Your task to perform on an android device: Open Google Chrome and click the shortcut for Amazon.com Image 0: 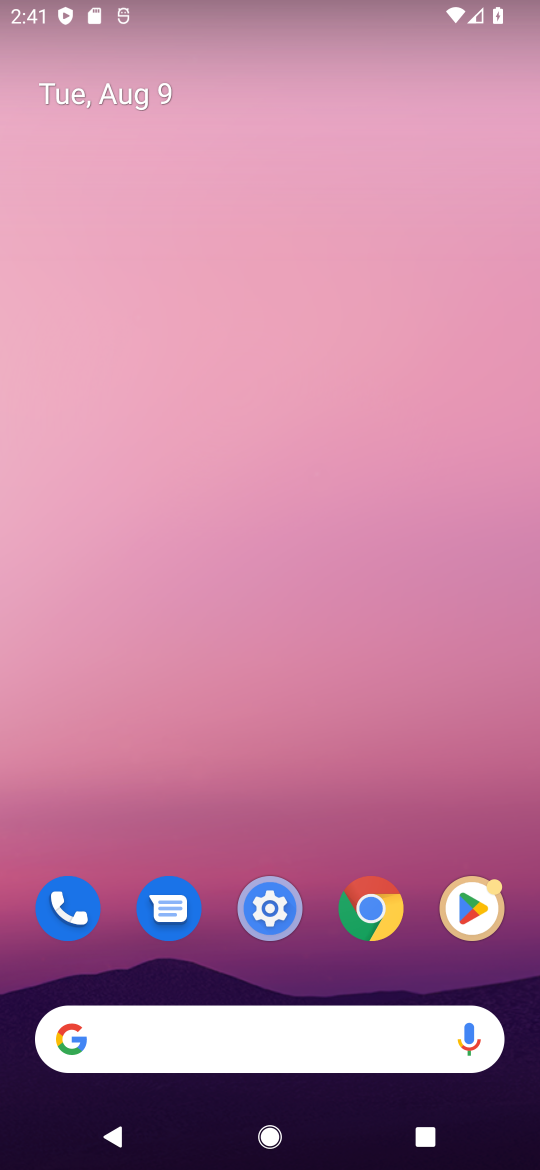
Step 0: click (279, 276)
Your task to perform on an android device: Open Google Chrome and click the shortcut for Amazon.com Image 1: 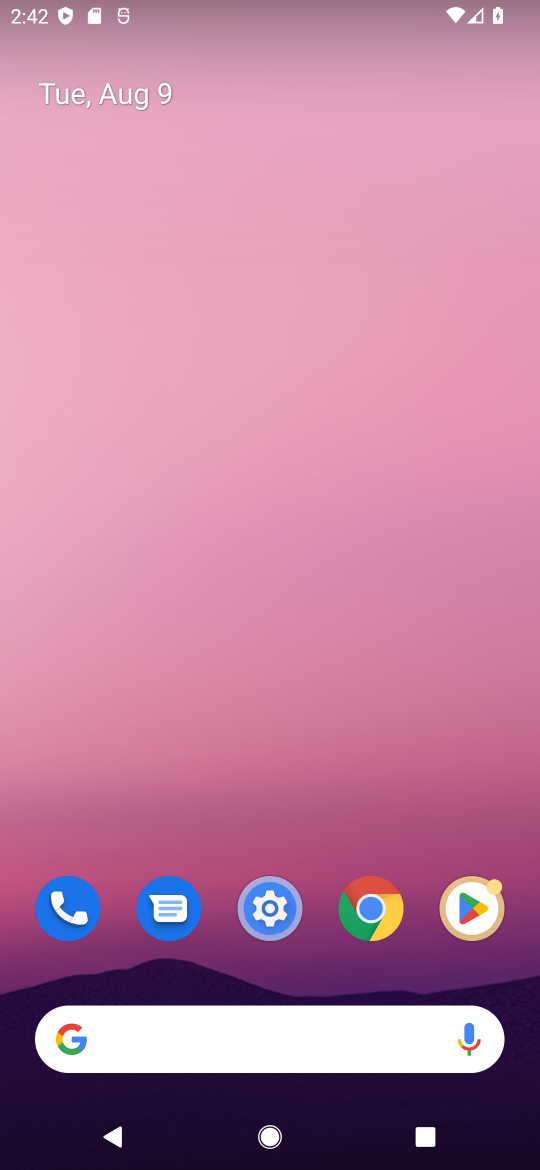
Step 1: drag from (305, 484) to (305, 260)
Your task to perform on an android device: Open Google Chrome and click the shortcut for Amazon.com Image 2: 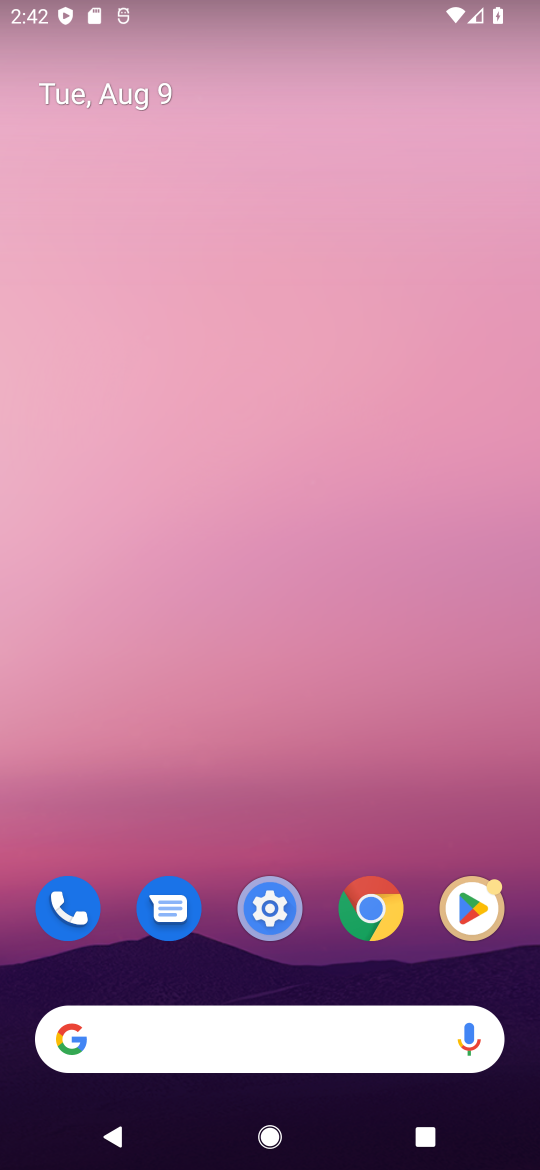
Step 2: click (229, 324)
Your task to perform on an android device: Open Google Chrome and click the shortcut for Amazon.com Image 3: 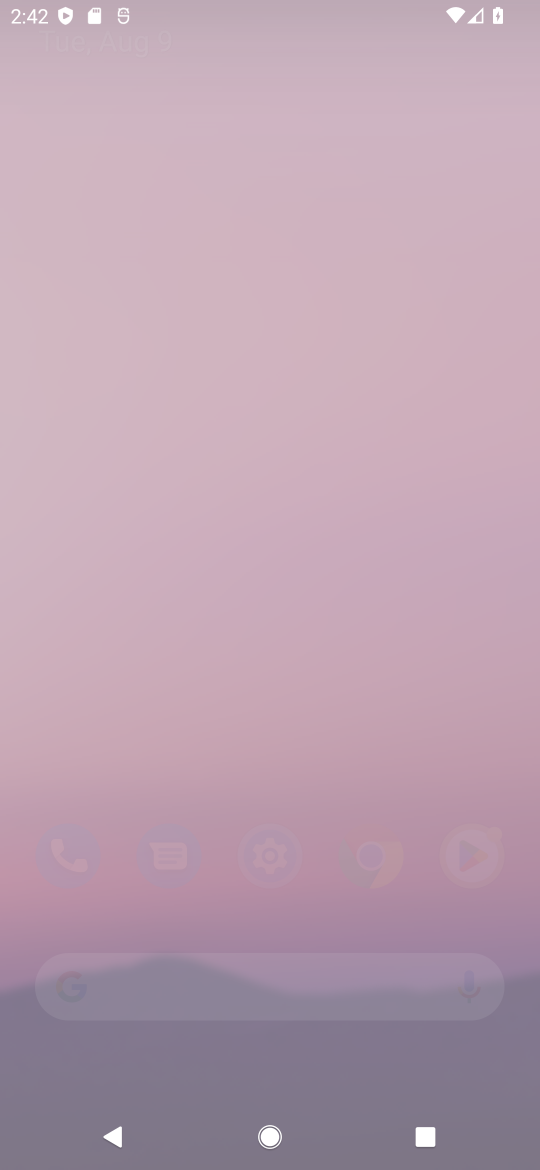
Step 3: drag from (176, 678) to (224, 46)
Your task to perform on an android device: Open Google Chrome and click the shortcut for Amazon.com Image 4: 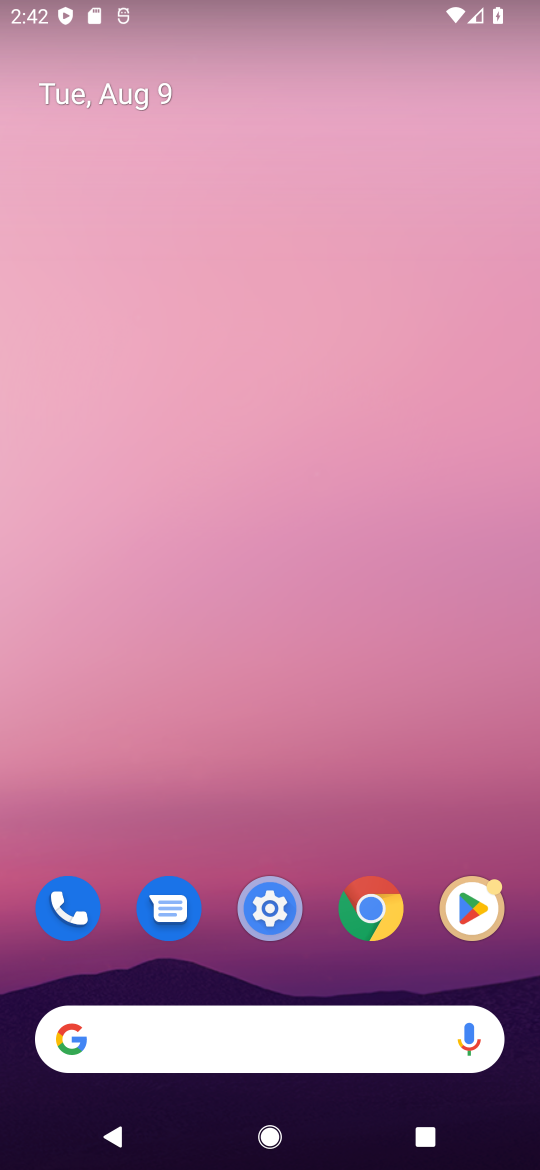
Step 4: drag from (274, 875) to (258, 293)
Your task to perform on an android device: Open Google Chrome and click the shortcut for Amazon.com Image 5: 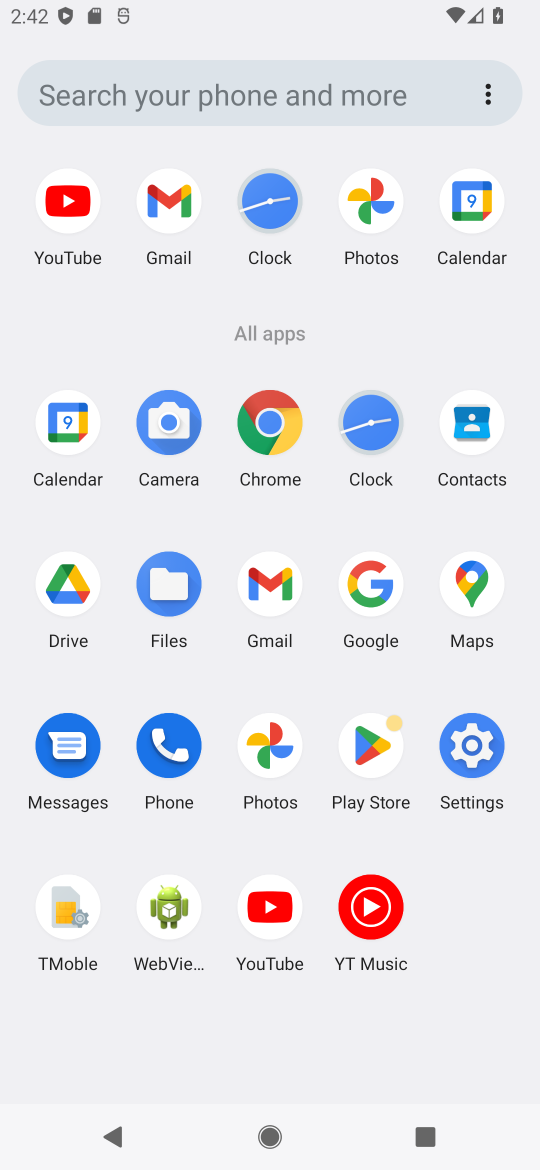
Step 5: drag from (277, 865) to (222, 193)
Your task to perform on an android device: Open Google Chrome and click the shortcut for Amazon.com Image 6: 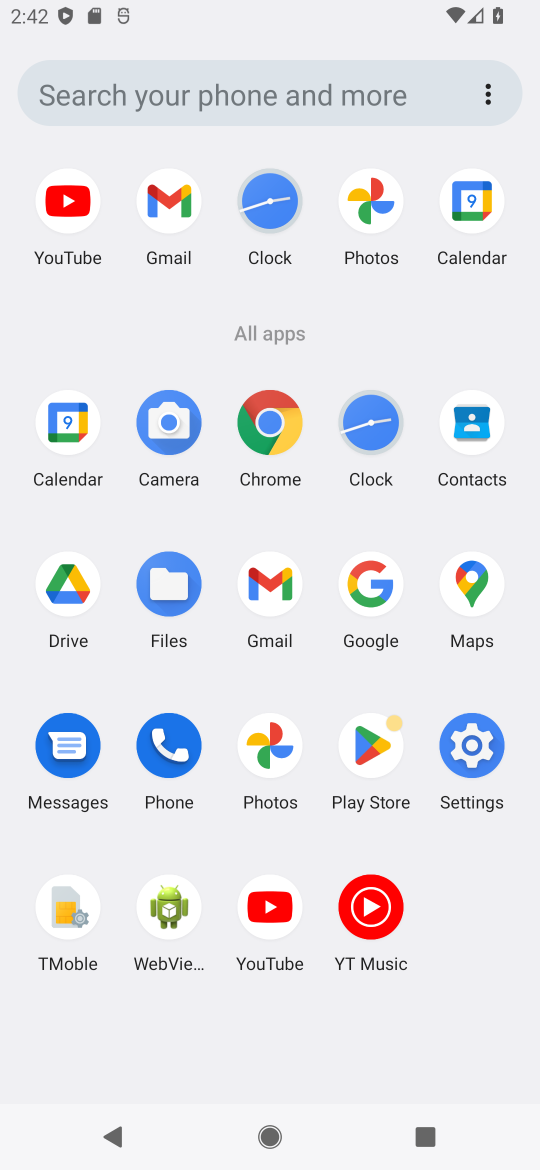
Step 6: click (271, 417)
Your task to perform on an android device: Open Google Chrome and click the shortcut for Amazon.com Image 7: 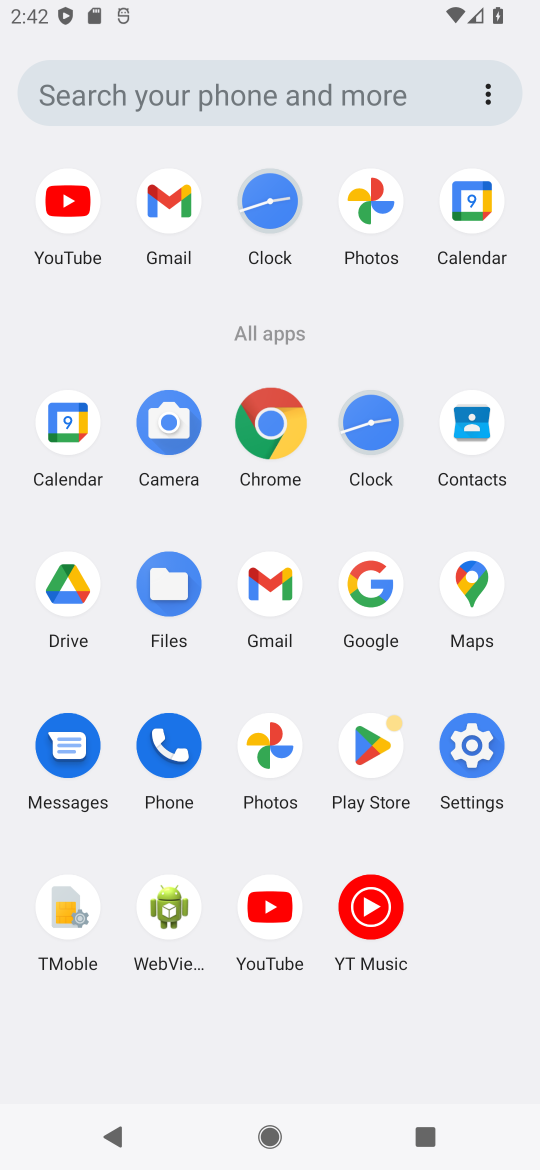
Step 7: click (273, 427)
Your task to perform on an android device: Open Google Chrome and click the shortcut for Amazon.com Image 8: 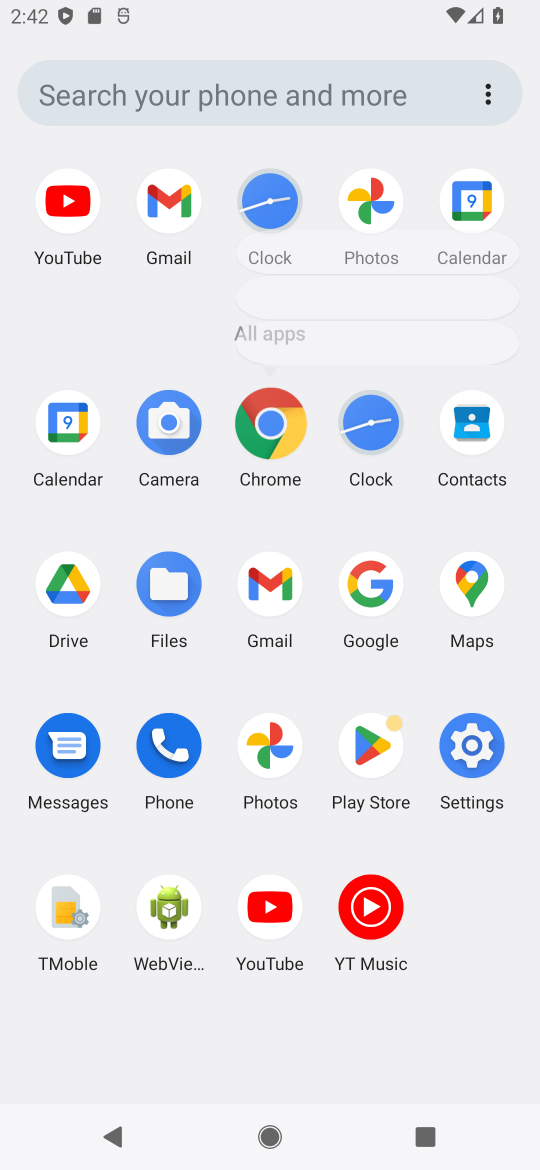
Step 8: click (273, 427)
Your task to perform on an android device: Open Google Chrome and click the shortcut for Amazon.com Image 9: 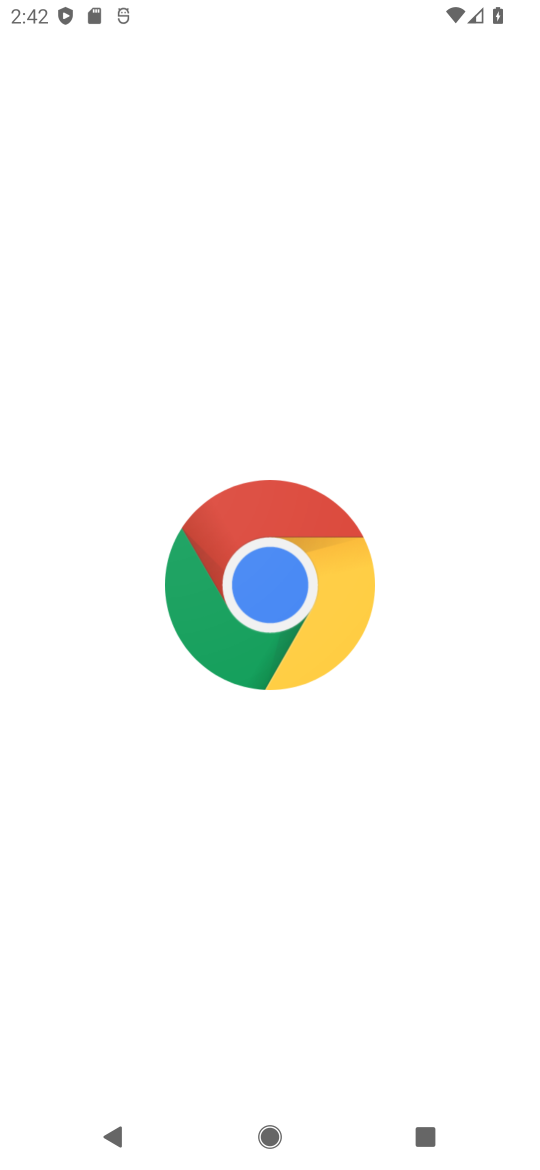
Step 9: click (266, 430)
Your task to perform on an android device: Open Google Chrome and click the shortcut for Amazon.com Image 10: 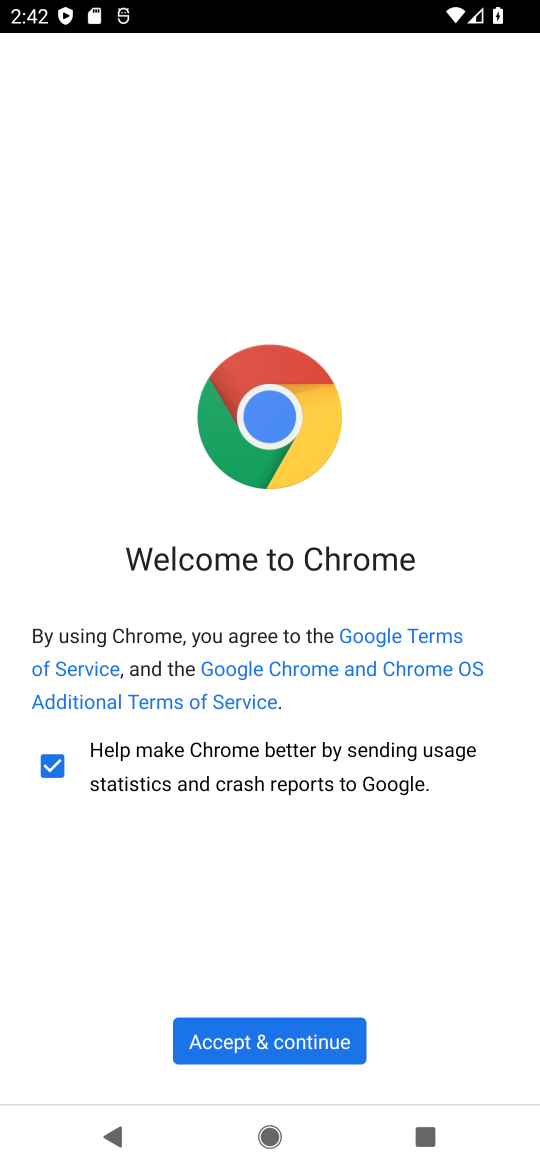
Step 10: click (289, 1043)
Your task to perform on an android device: Open Google Chrome and click the shortcut for Amazon.com Image 11: 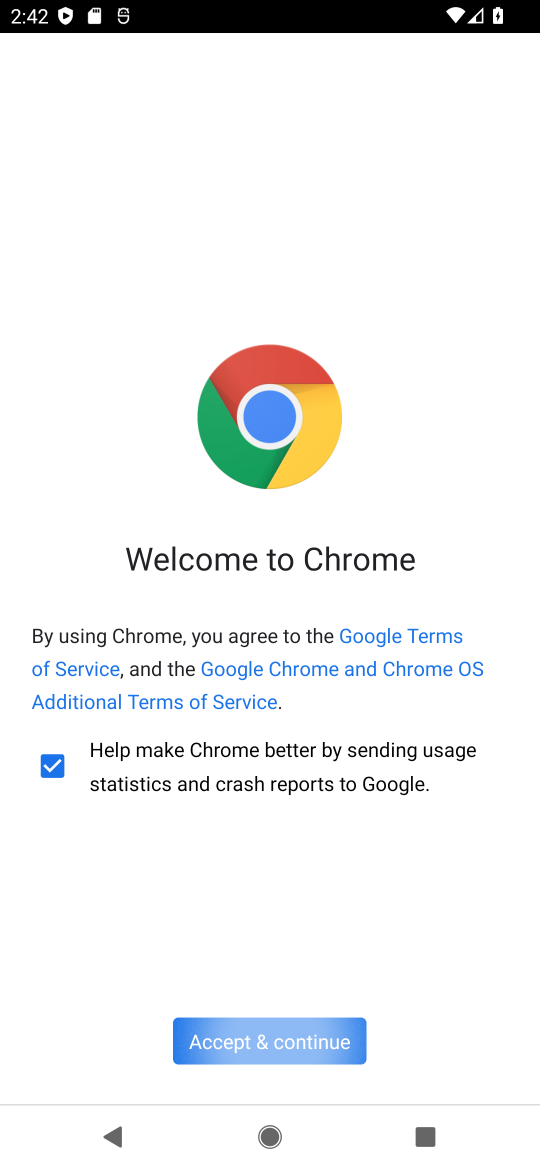
Step 11: click (290, 1043)
Your task to perform on an android device: Open Google Chrome and click the shortcut for Amazon.com Image 12: 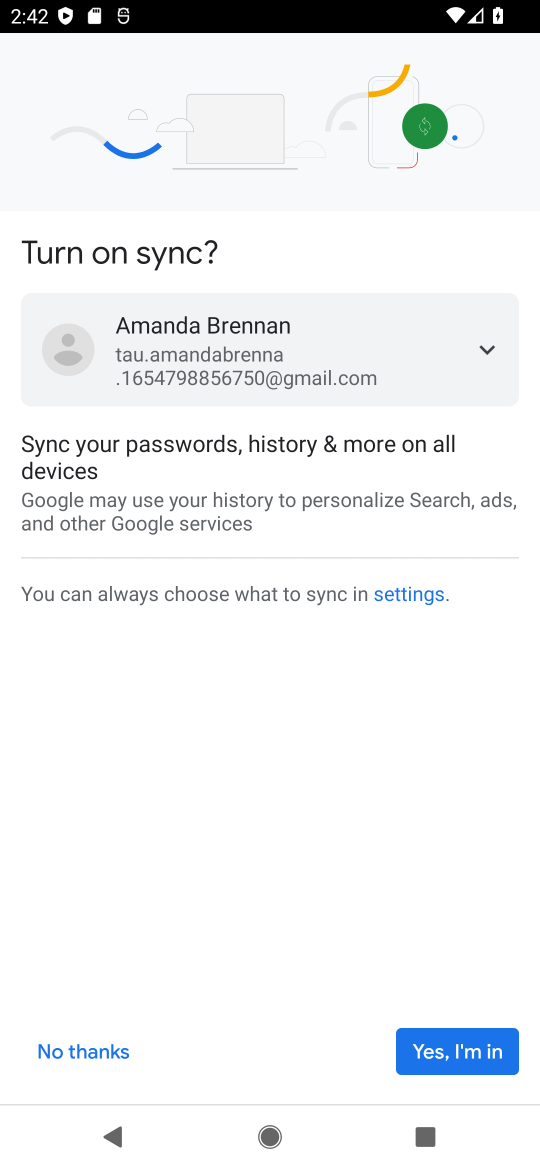
Step 12: click (82, 1076)
Your task to perform on an android device: Open Google Chrome and click the shortcut for Amazon.com Image 13: 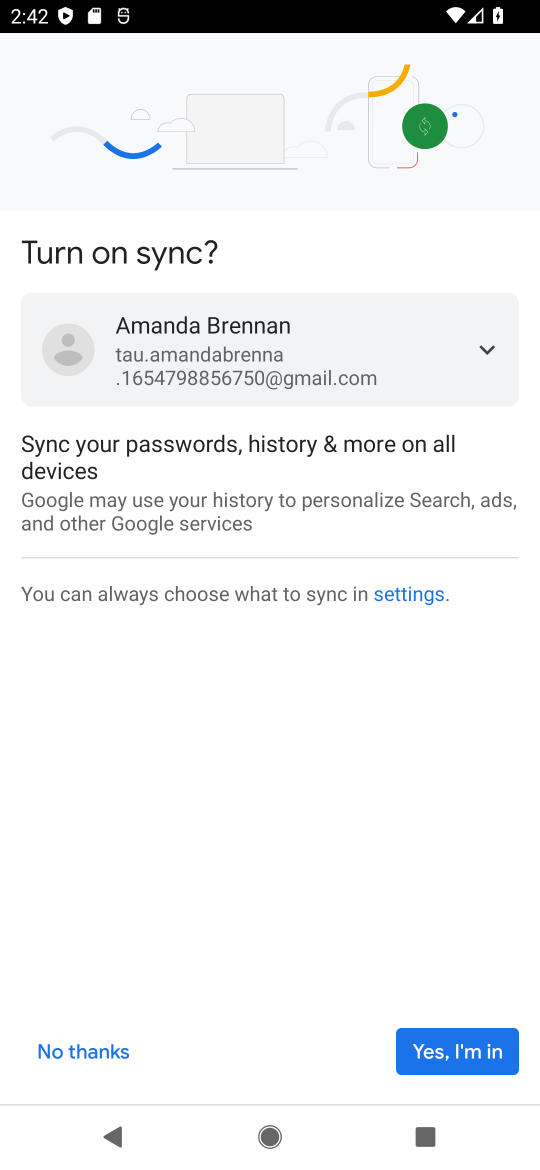
Step 13: click (78, 1043)
Your task to perform on an android device: Open Google Chrome and click the shortcut for Amazon.com Image 14: 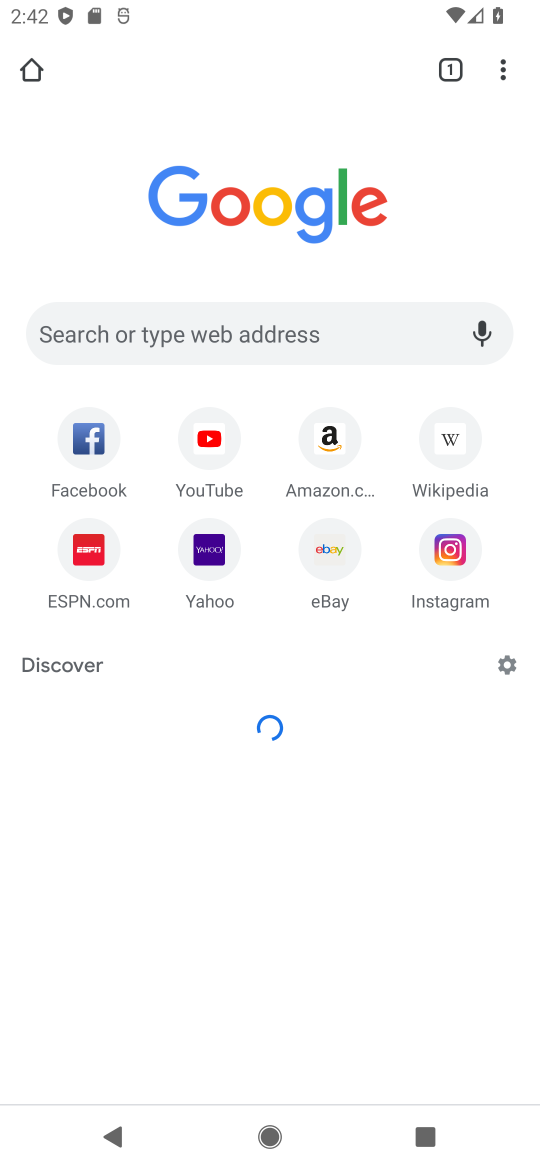
Step 14: click (349, 435)
Your task to perform on an android device: Open Google Chrome and click the shortcut for Amazon.com Image 15: 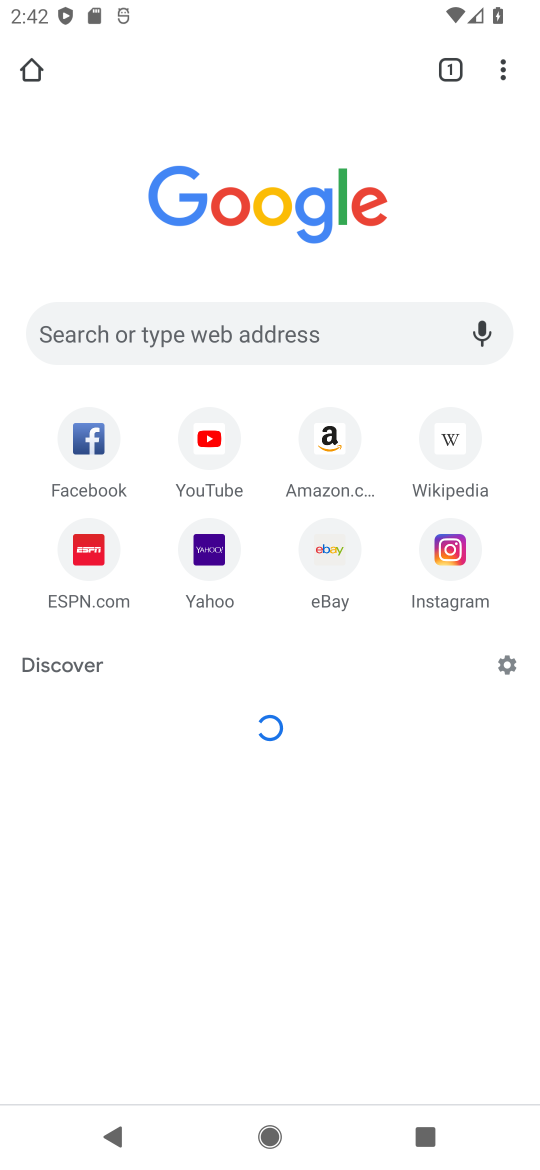
Step 15: click (330, 442)
Your task to perform on an android device: Open Google Chrome and click the shortcut for Amazon.com Image 16: 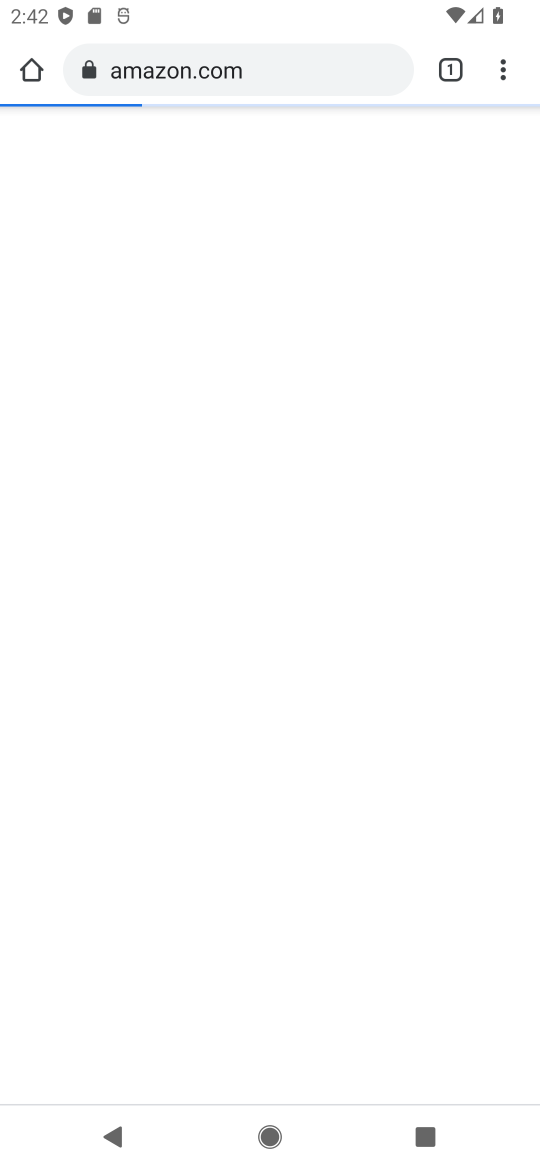
Step 16: click (342, 463)
Your task to perform on an android device: Open Google Chrome and click the shortcut for Amazon.com Image 17: 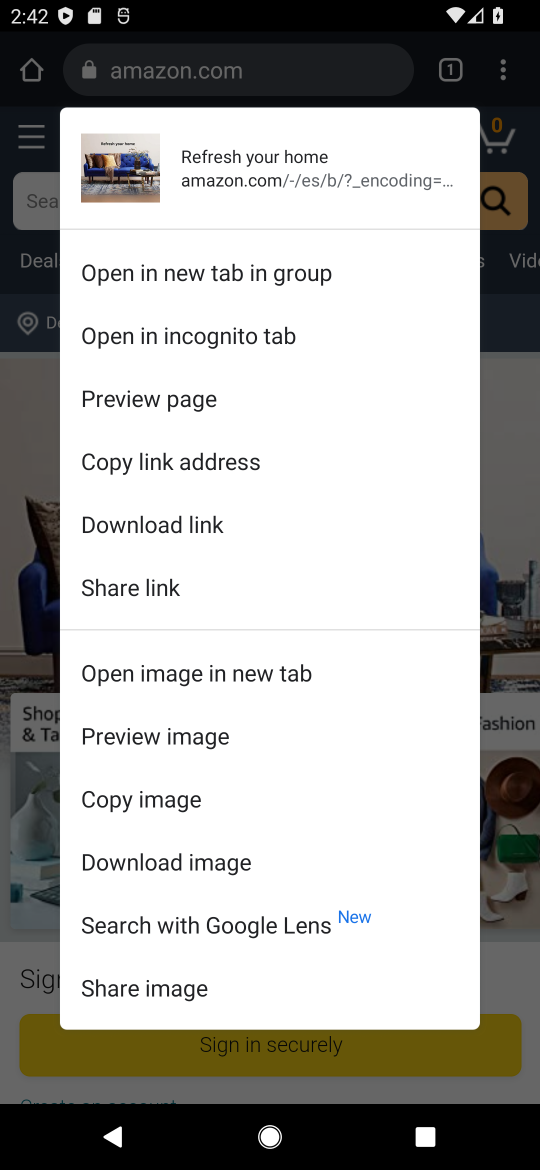
Step 17: task complete